Your task to perform on an android device: Go to settings Image 0: 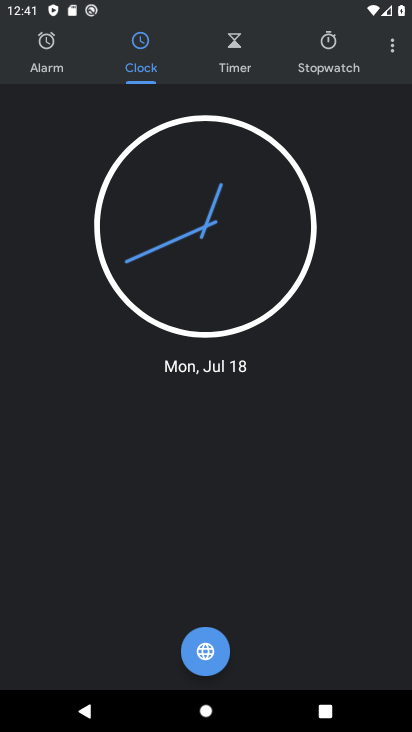
Step 0: press home button
Your task to perform on an android device: Go to settings Image 1: 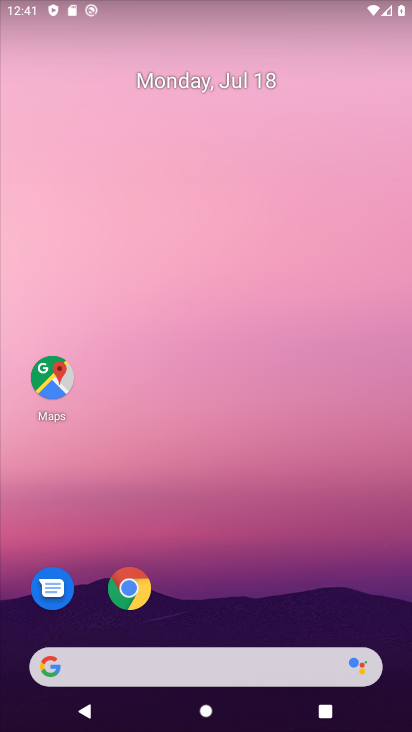
Step 1: drag from (323, 583) to (315, 107)
Your task to perform on an android device: Go to settings Image 2: 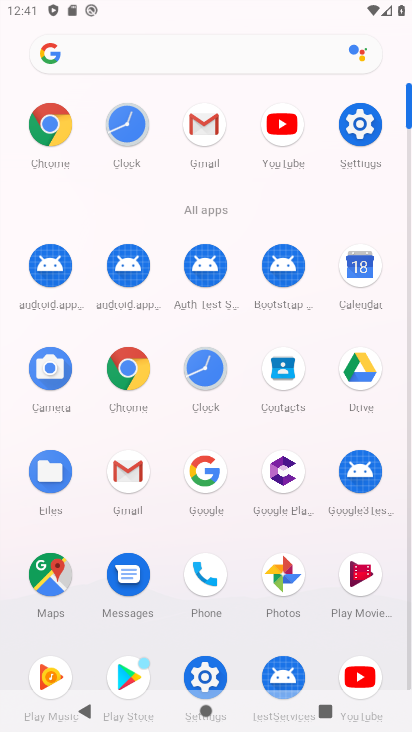
Step 2: click (368, 128)
Your task to perform on an android device: Go to settings Image 3: 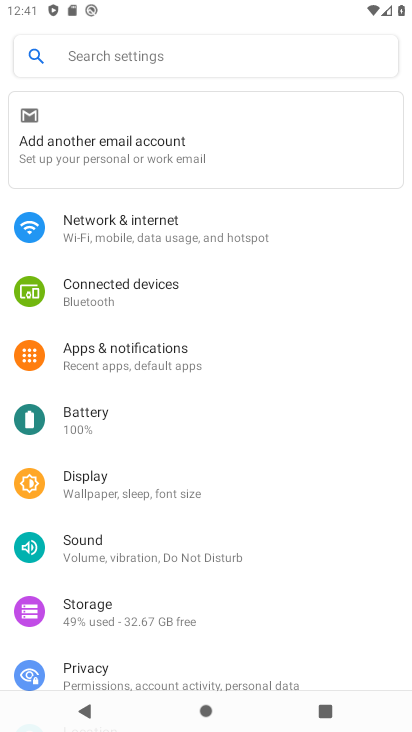
Step 3: task complete